Your task to perform on an android device: change alarm snooze length Image 0: 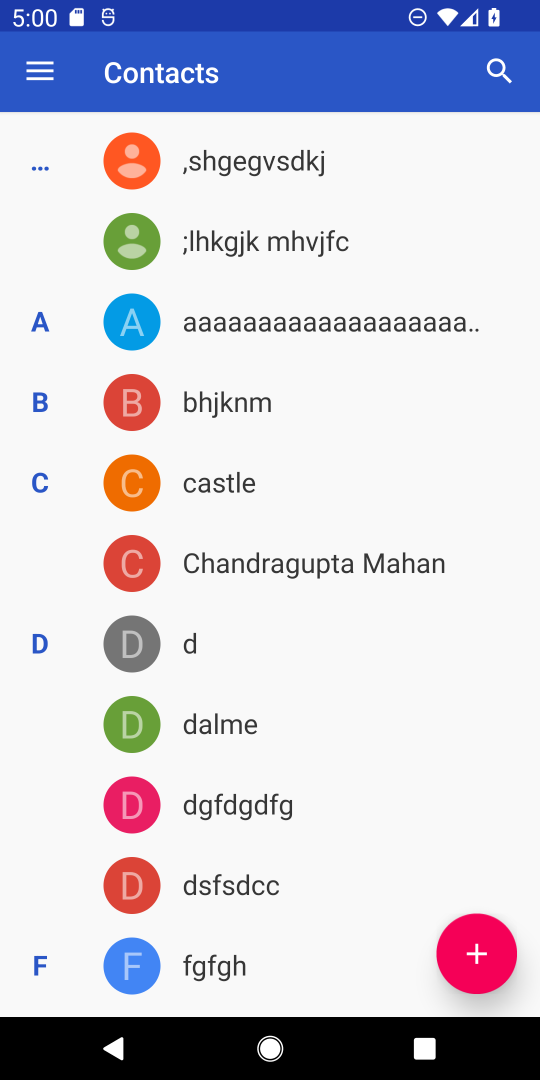
Step 0: press home button
Your task to perform on an android device: change alarm snooze length Image 1: 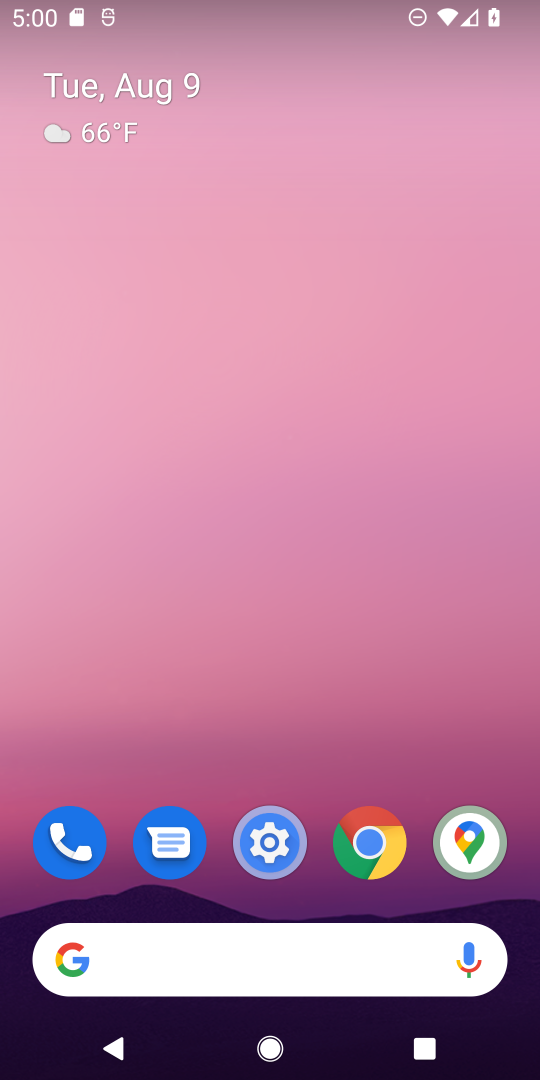
Step 1: drag from (232, 961) to (226, 246)
Your task to perform on an android device: change alarm snooze length Image 2: 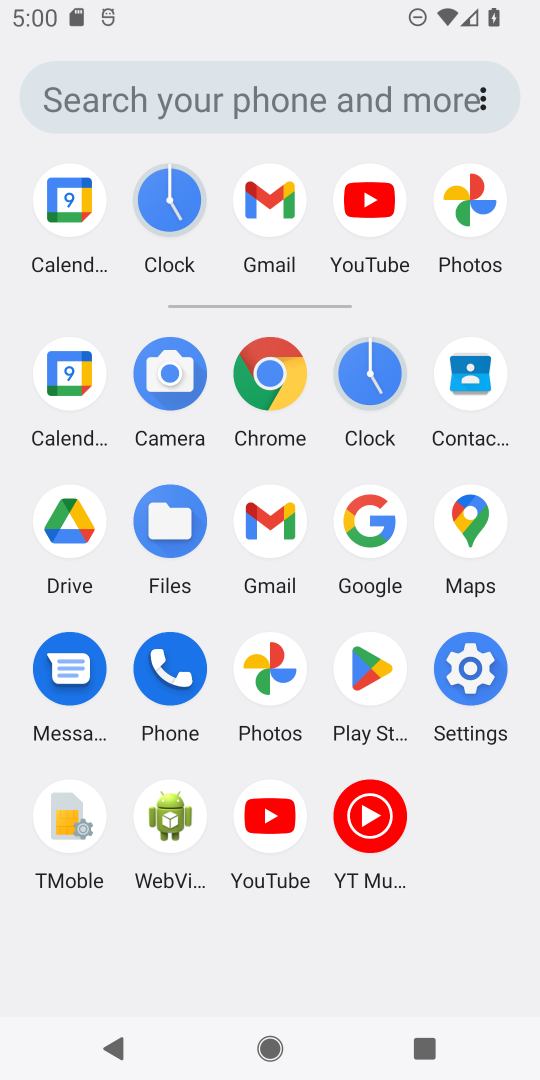
Step 2: click (382, 383)
Your task to perform on an android device: change alarm snooze length Image 3: 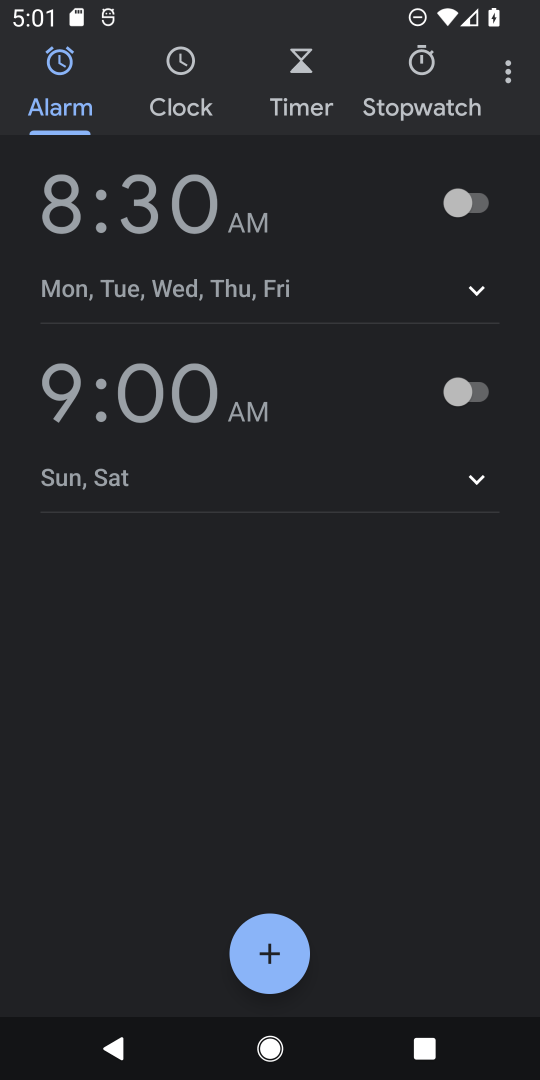
Step 3: click (512, 70)
Your task to perform on an android device: change alarm snooze length Image 4: 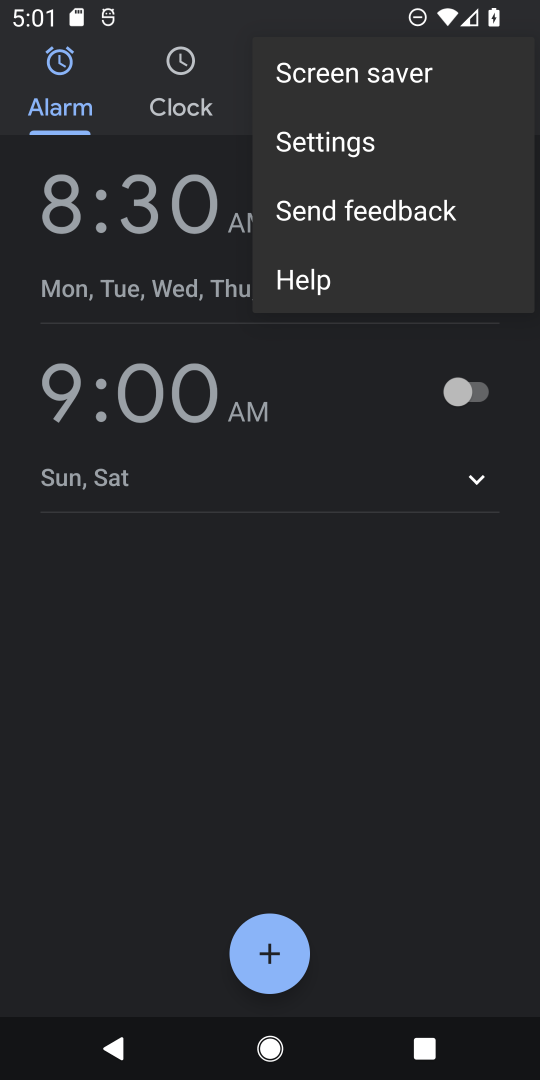
Step 4: click (330, 824)
Your task to perform on an android device: change alarm snooze length Image 5: 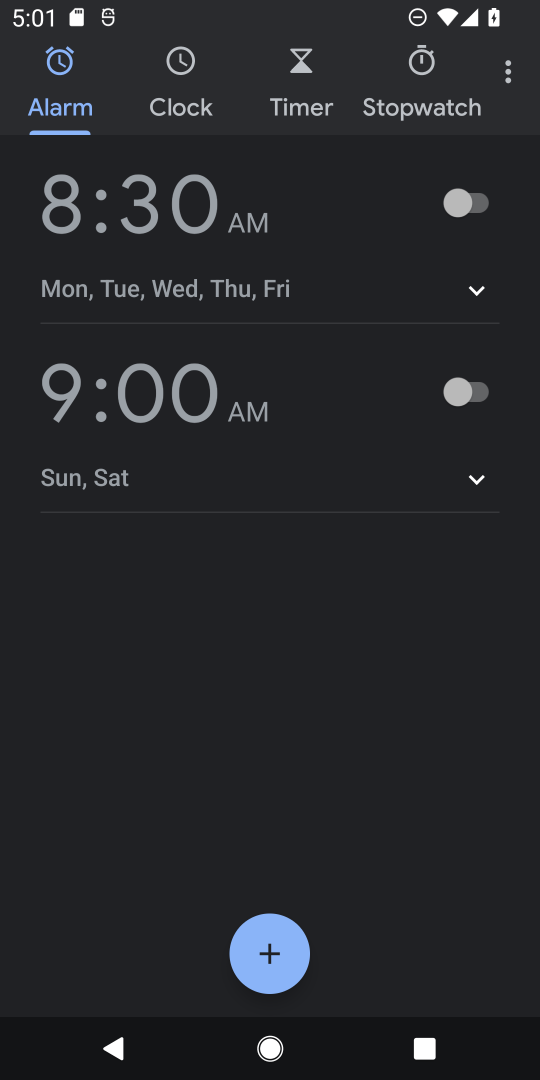
Step 5: click (511, 76)
Your task to perform on an android device: change alarm snooze length Image 6: 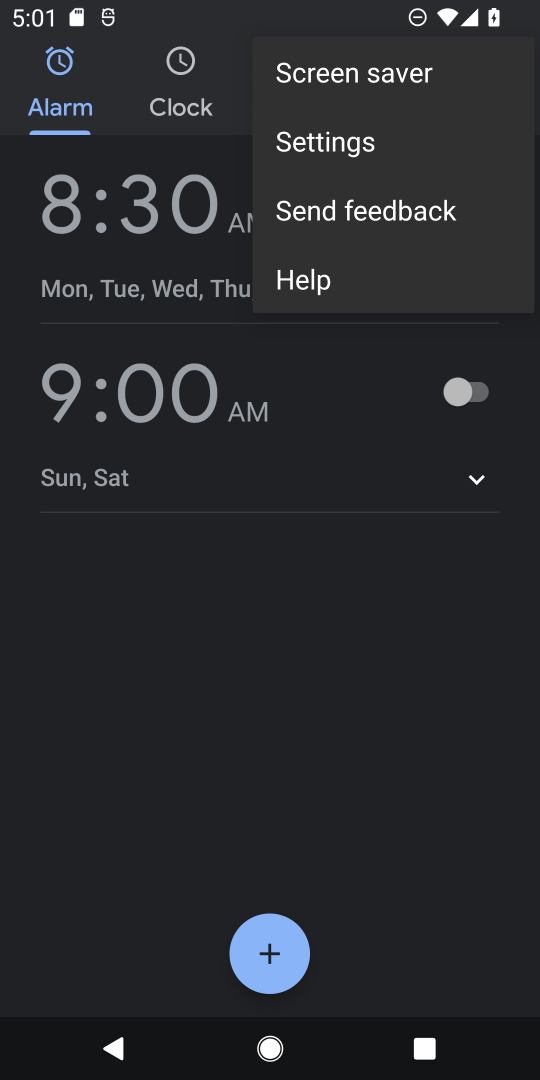
Step 6: click (343, 155)
Your task to perform on an android device: change alarm snooze length Image 7: 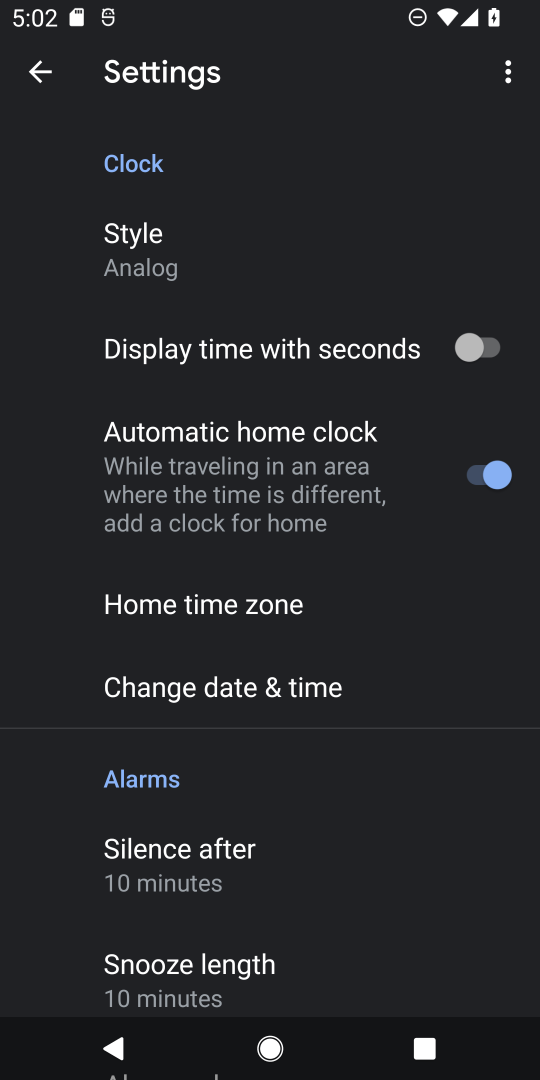
Step 7: click (254, 974)
Your task to perform on an android device: change alarm snooze length Image 8: 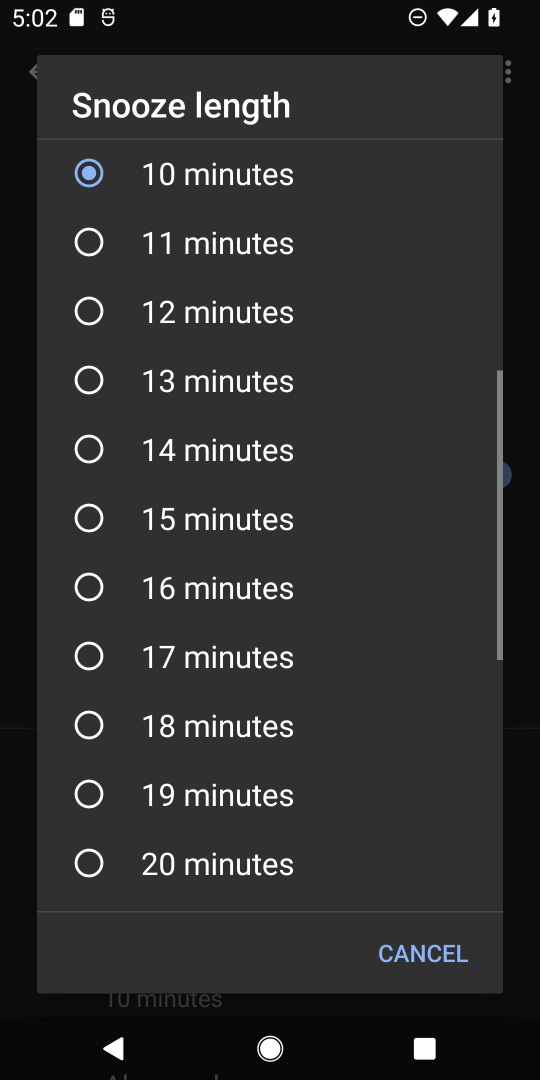
Step 8: click (149, 311)
Your task to perform on an android device: change alarm snooze length Image 9: 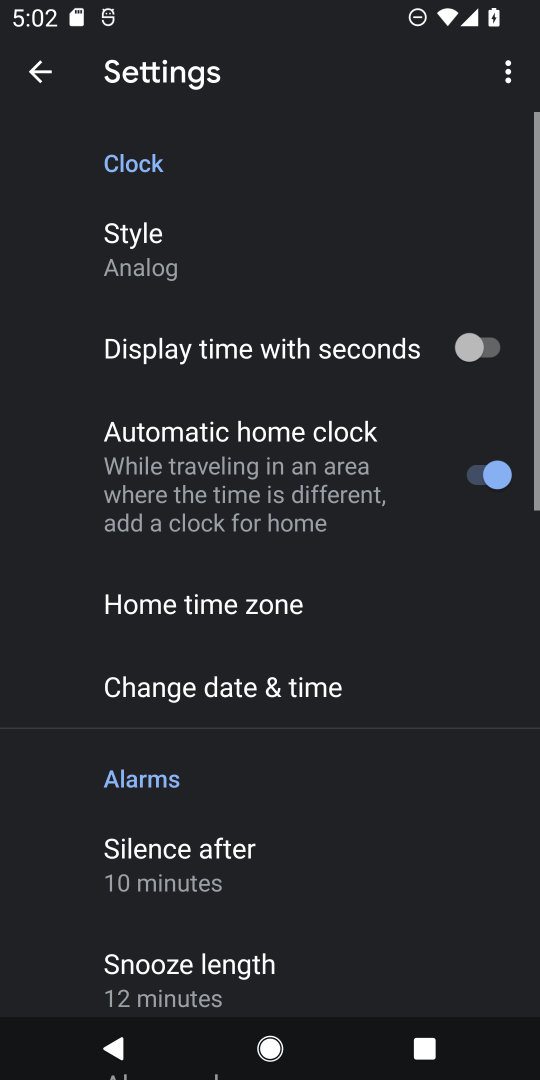
Step 9: task complete